Your task to perform on an android device: search for starred emails in the gmail app Image 0: 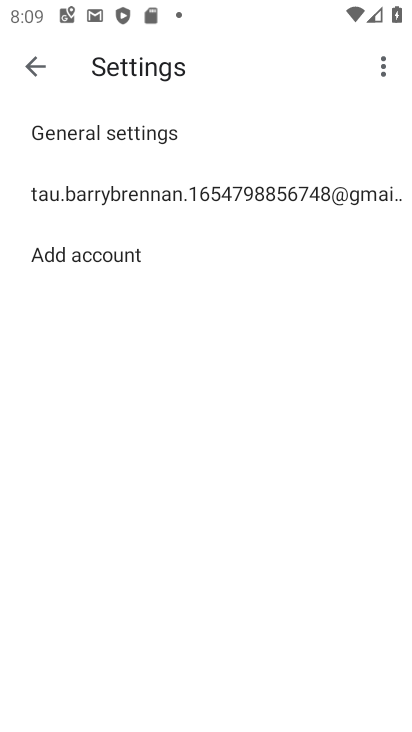
Step 0: press home button
Your task to perform on an android device: search for starred emails in the gmail app Image 1: 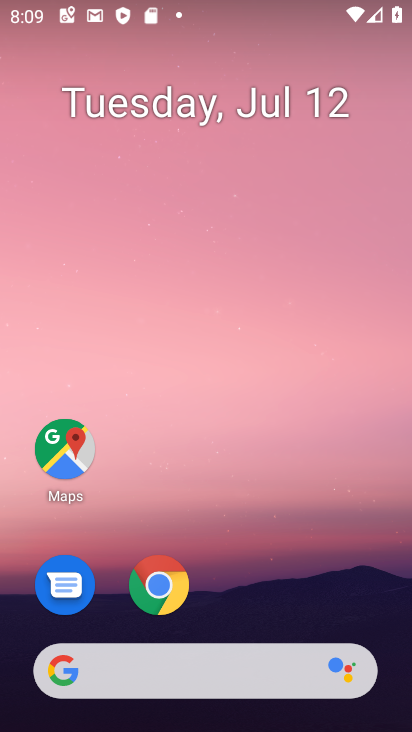
Step 1: drag from (280, 540) to (256, 16)
Your task to perform on an android device: search for starred emails in the gmail app Image 2: 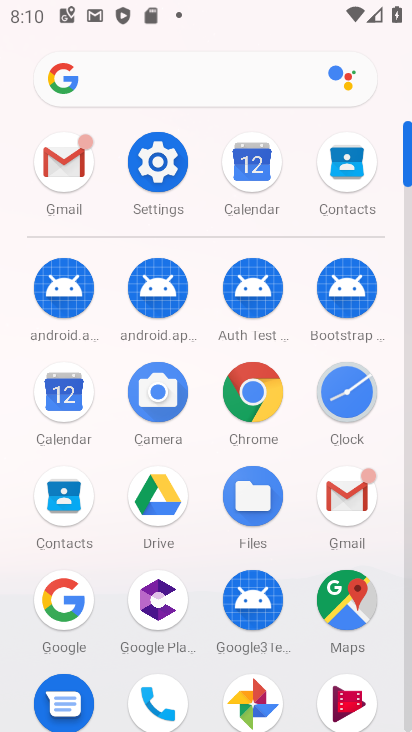
Step 2: click (70, 167)
Your task to perform on an android device: search for starred emails in the gmail app Image 3: 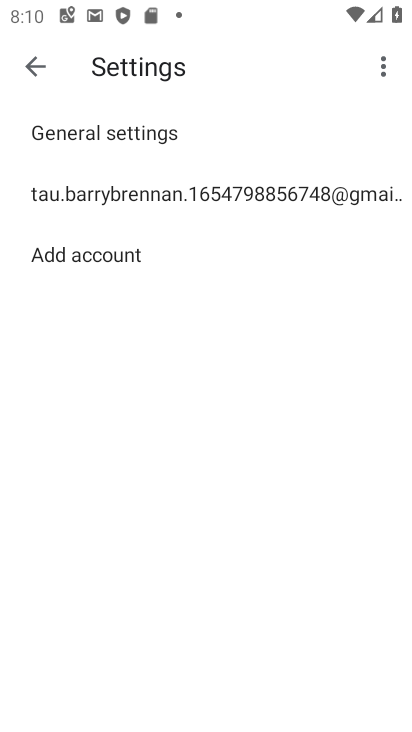
Step 3: click (47, 64)
Your task to perform on an android device: search for starred emails in the gmail app Image 4: 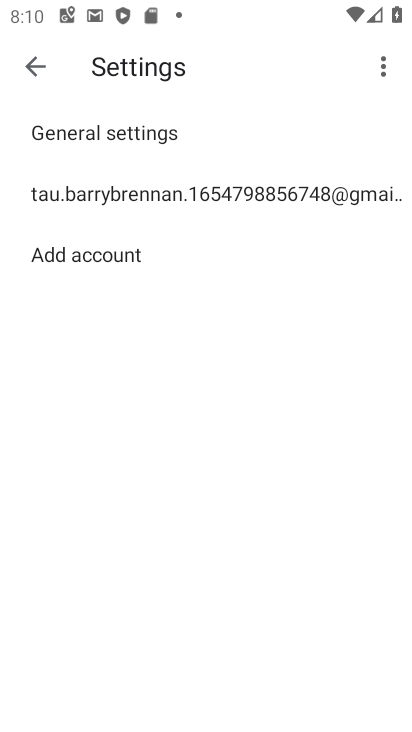
Step 4: click (33, 59)
Your task to perform on an android device: search for starred emails in the gmail app Image 5: 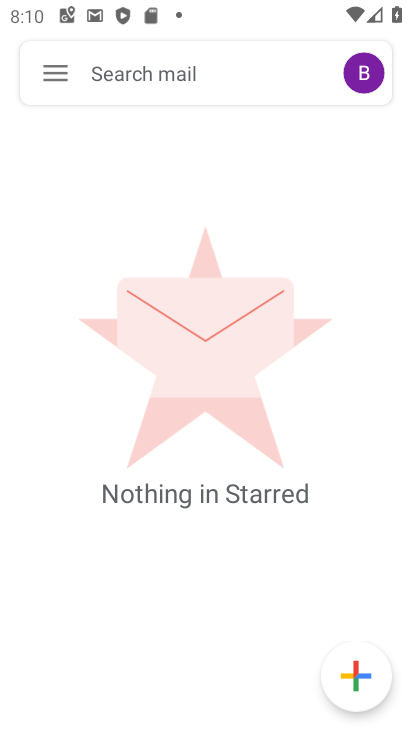
Step 5: task complete